Your task to perform on an android device: Show me popular videos on Youtube Image 0: 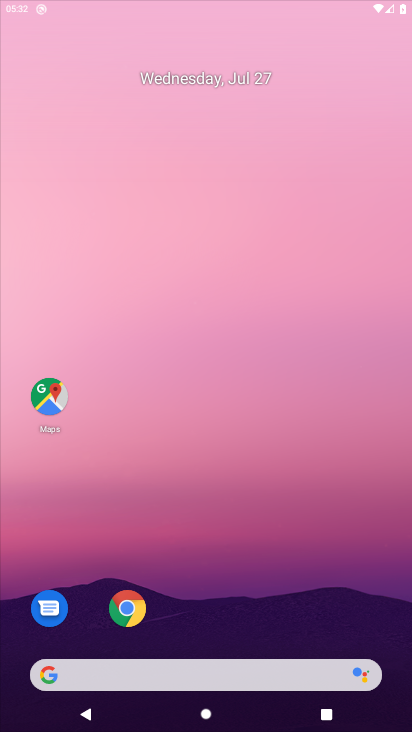
Step 0: press home button
Your task to perform on an android device: Show me popular videos on Youtube Image 1: 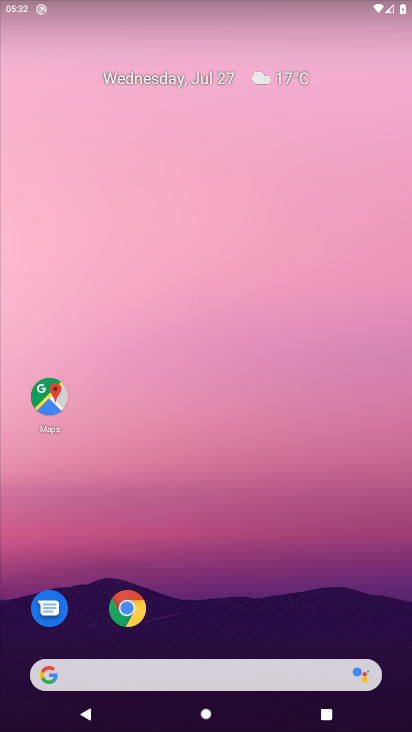
Step 1: drag from (232, 633) to (242, 244)
Your task to perform on an android device: Show me popular videos on Youtube Image 2: 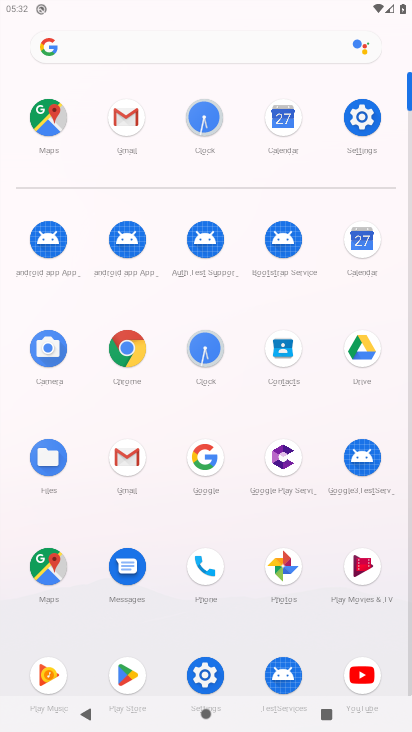
Step 2: click (368, 693)
Your task to perform on an android device: Show me popular videos on Youtube Image 3: 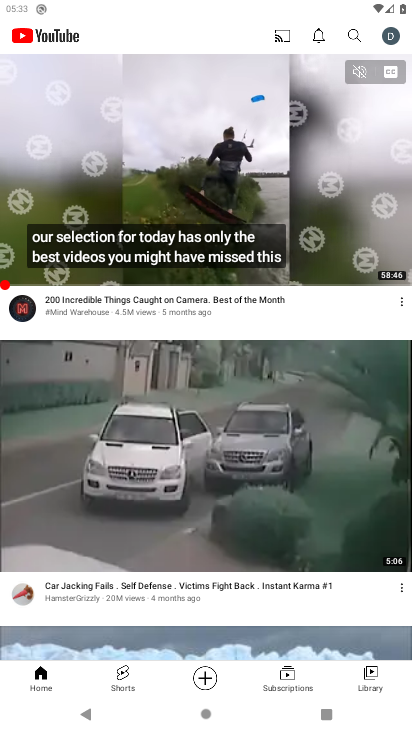
Step 3: click (37, 683)
Your task to perform on an android device: Show me popular videos on Youtube Image 4: 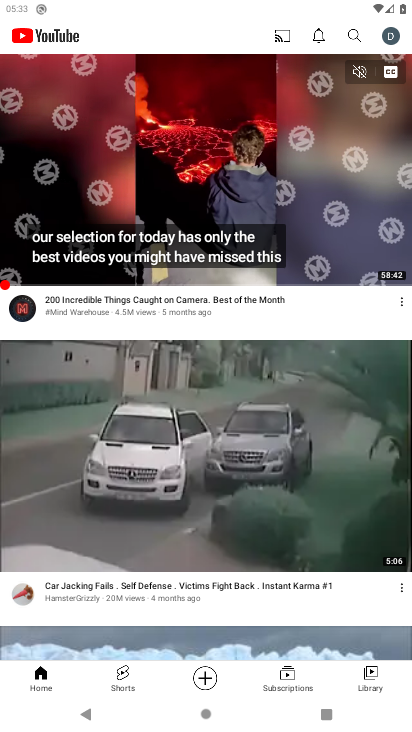
Step 4: click (37, 683)
Your task to perform on an android device: Show me popular videos on Youtube Image 5: 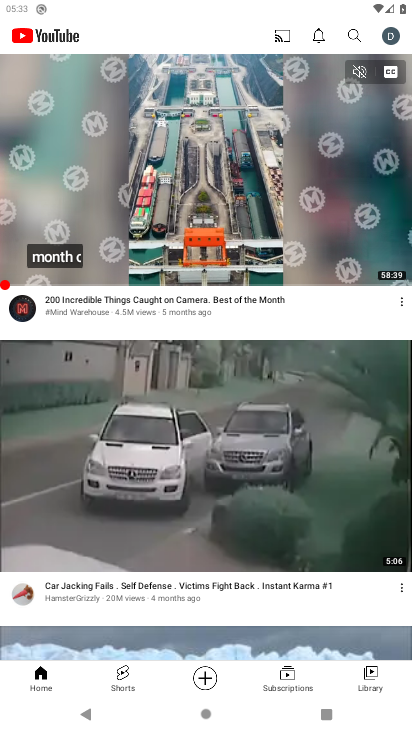
Step 5: drag from (320, 302) to (399, 700)
Your task to perform on an android device: Show me popular videos on Youtube Image 6: 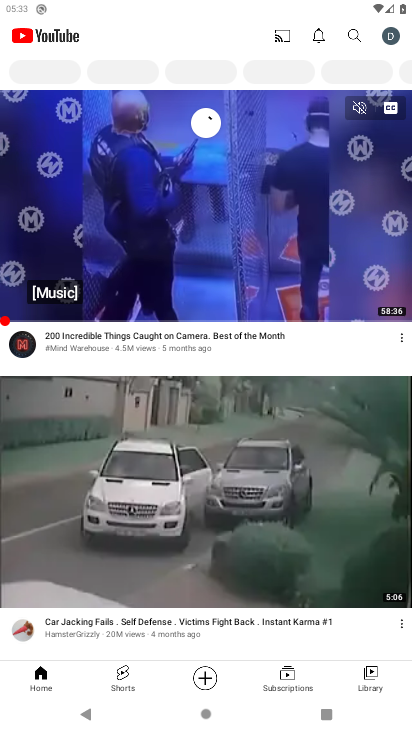
Step 6: click (41, 74)
Your task to perform on an android device: Show me popular videos on Youtube Image 7: 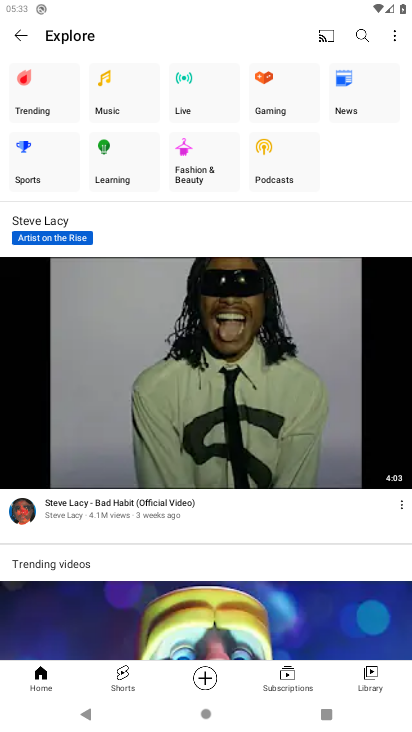
Step 7: click (32, 87)
Your task to perform on an android device: Show me popular videos on Youtube Image 8: 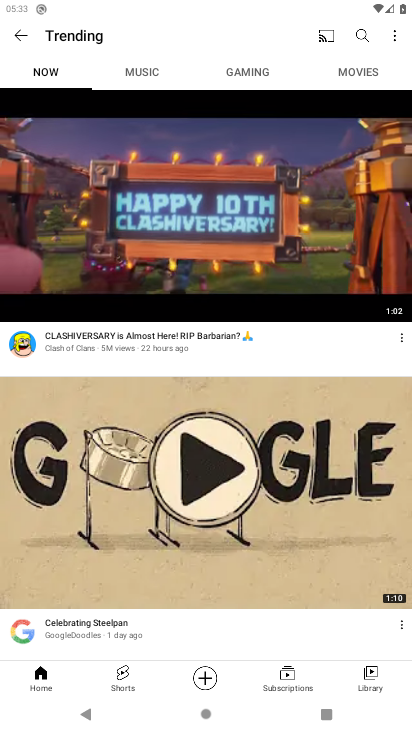
Step 8: task complete